Your task to perform on an android device: turn off wifi Image 0: 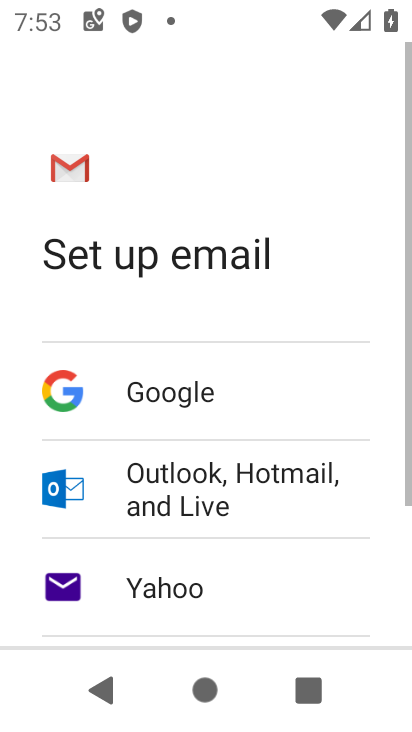
Step 0: drag from (193, 563) to (297, 82)
Your task to perform on an android device: turn off wifi Image 1: 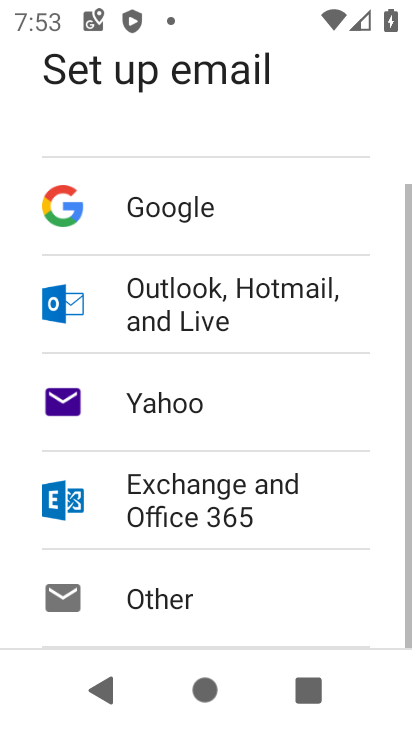
Step 1: press home button
Your task to perform on an android device: turn off wifi Image 2: 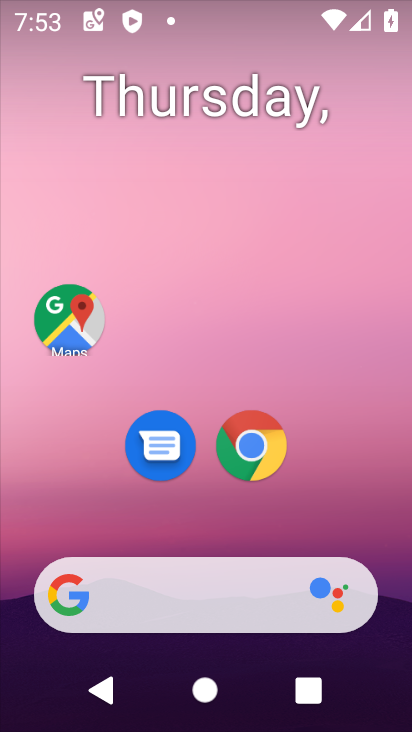
Step 2: drag from (186, 551) to (251, 177)
Your task to perform on an android device: turn off wifi Image 3: 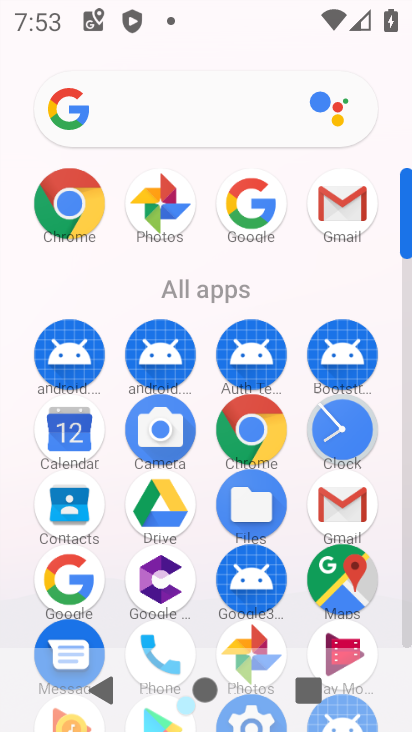
Step 3: drag from (199, 621) to (187, 208)
Your task to perform on an android device: turn off wifi Image 4: 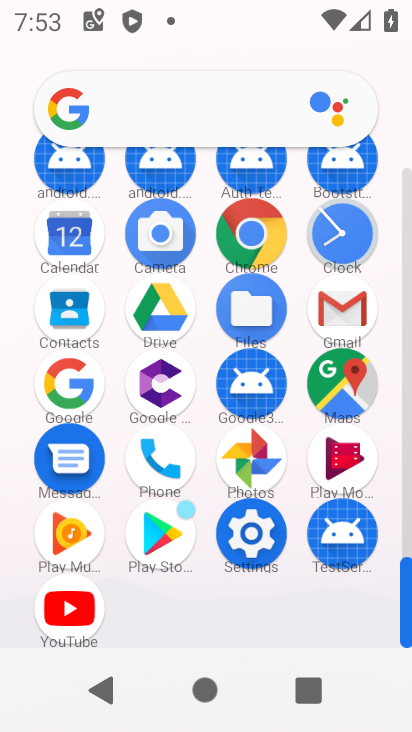
Step 4: click (241, 532)
Your task to perform on an android device: turn off wifi Image 5: 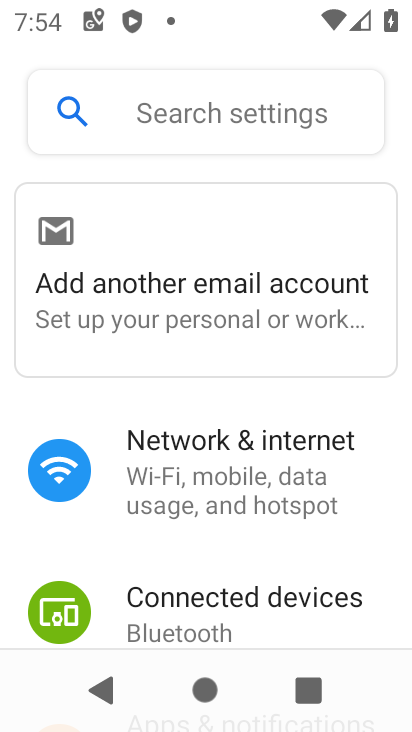
Step 5: click (202, 463)
Your task to perform on an android device: turn off wifi Image 6: 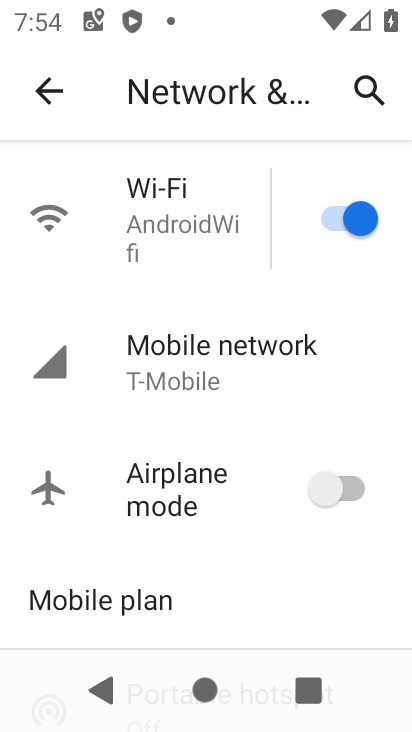
Step 6: click (342, 212)
Your task to perform on an android device: turn off wifi Image 7: 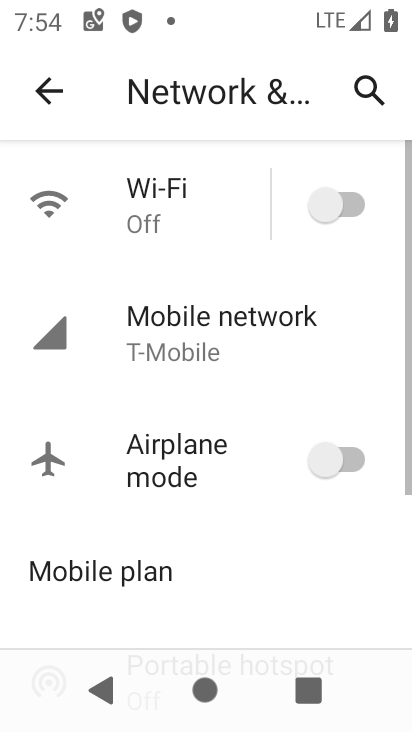
Step 7: task complete